Your task to perform on an android device: Open wifi settings Image 0: 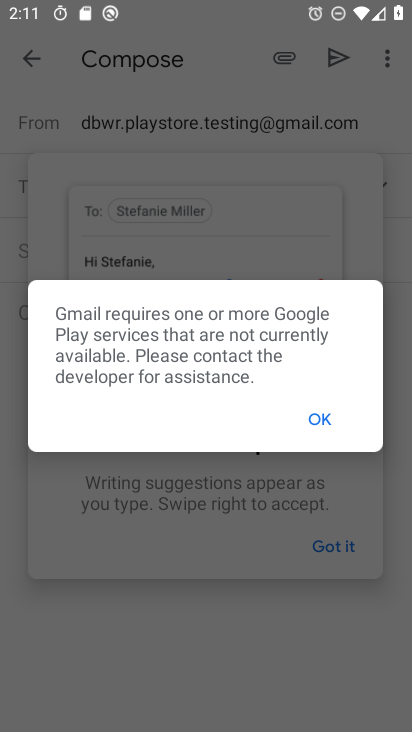
Step 0: press home button
Your task to perform on an android device: Open wifi settings Image 1: 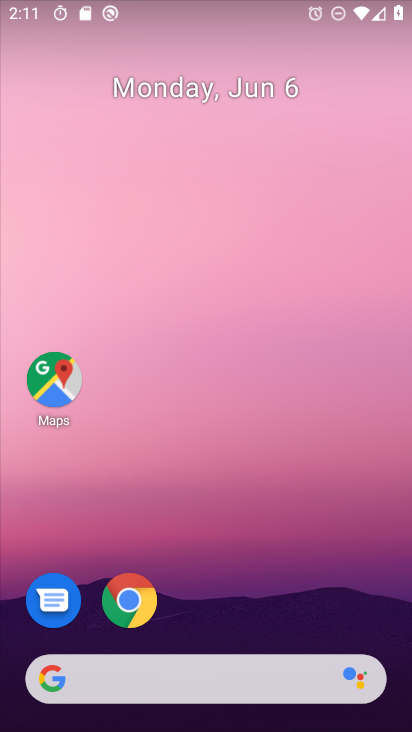
Step 1: drag from (230, 613) to (201, 232)
Your task to perform on an android device: Open wifi settings Image 2: 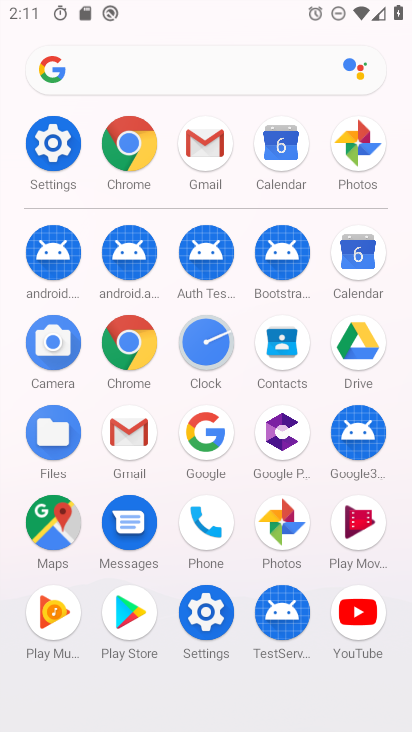
Step 2: click (52, 147)
Your task to perform on an android device: Open wifi settings Image 3: 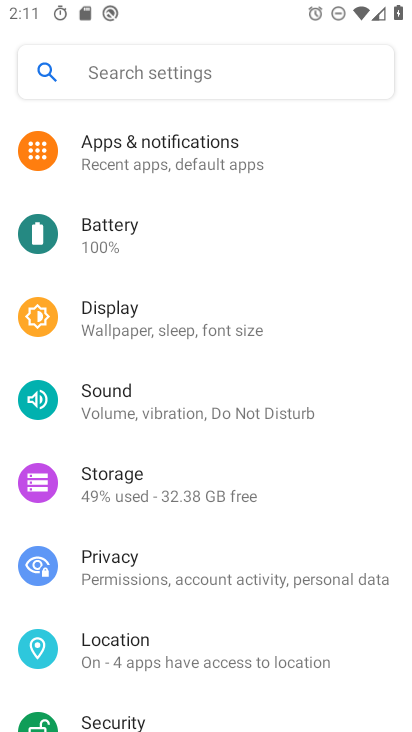
Step 3: drag from (162, 182) to (192, 513)
Your task to perform on an android device: Open wifi settings Image 4: 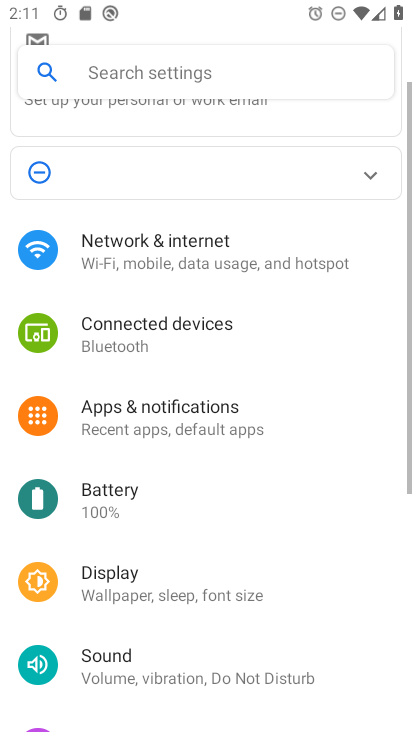
Step 4: click (168, 245)
Your task to perform on an android device: Open wifi settings Image 5: 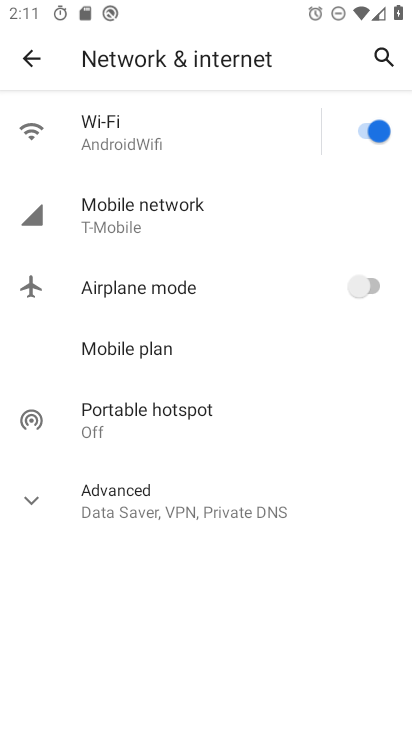
Step 5: click (150, 132)
Your task to perform on an android device: Open wifi settings Image 6: 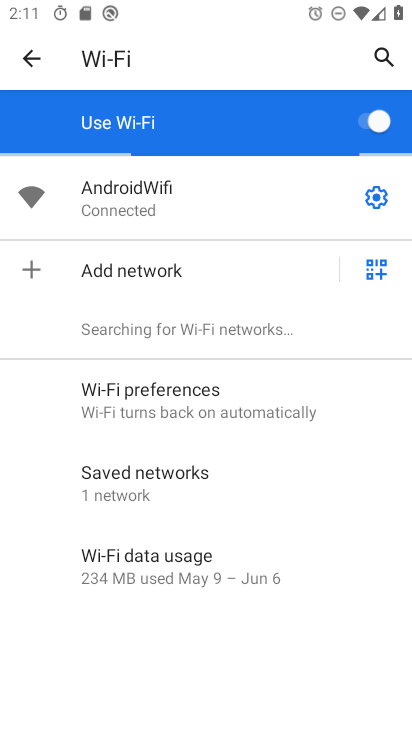
Step 6: task complete